Your task to perform on an android device: empty trash in the gmail app Image 0: 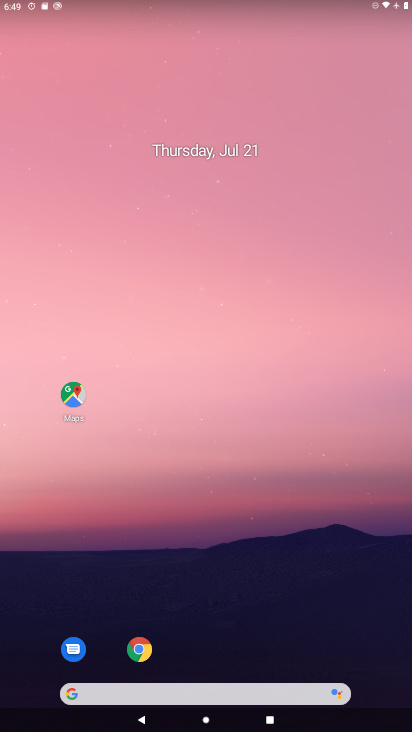
Step 0: drag from (388, 670) to (176, 17)
Your task to perform on an android device: empty trash in the gmail app Image 1: 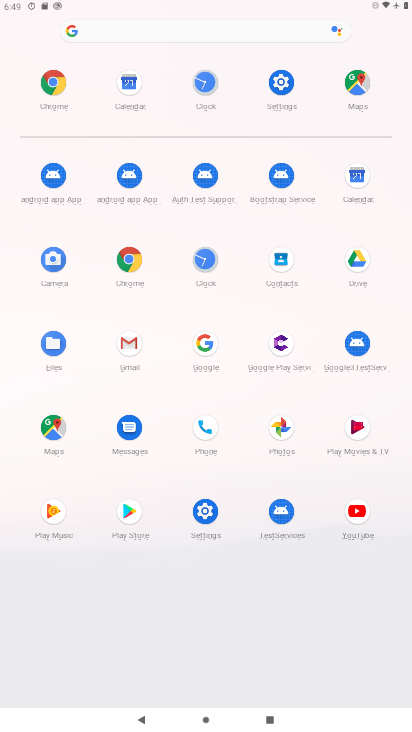
Step 1: click (122, 341)
Your task to perform on an android device: empty trash in the gmail app Image 2: 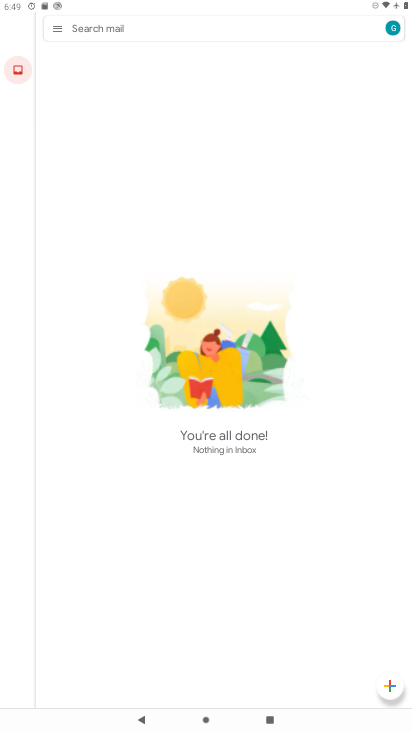
Step 2: click (59, 28)
Your task to perform on an android device: empty trash in the gmail app Image 3: 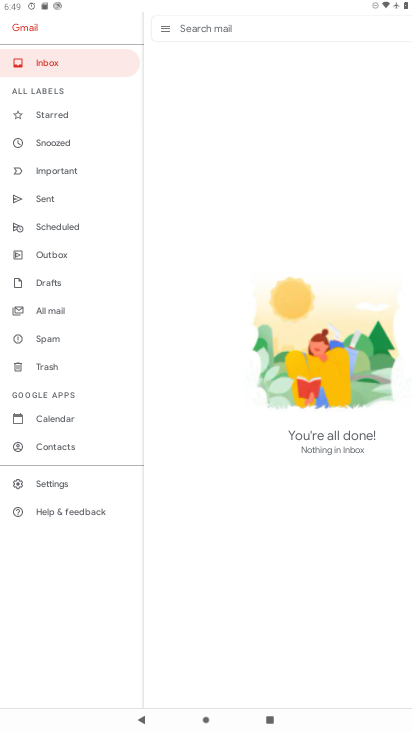
Step 3: click (44, 363)
Your task to perform on an android device: empty trash in the gmail app Image 4: 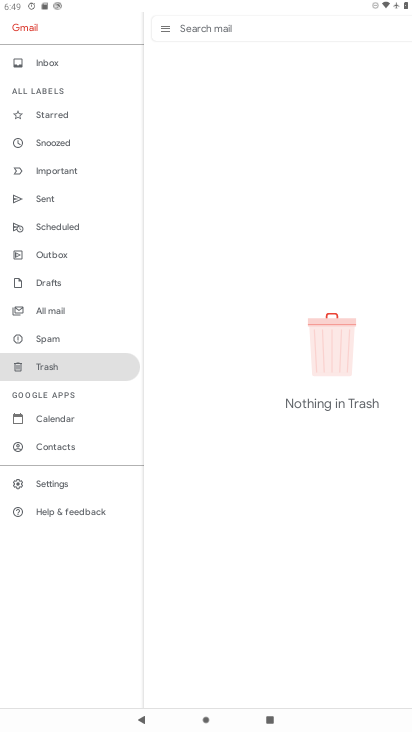
Step 4: task complete